Your task to perform on an android device: turn off smart reply in the gmail app Image 0: 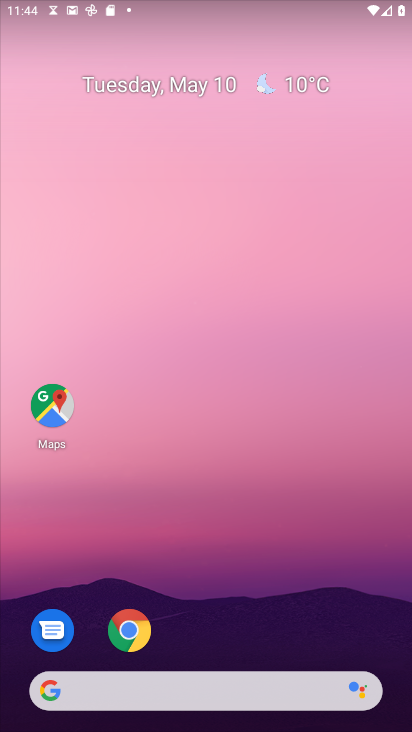
Step 0: drag from (239, 619) to (269, 92)
Your task to perform on an android device: turn off smart reply in the gmail app Image 1: 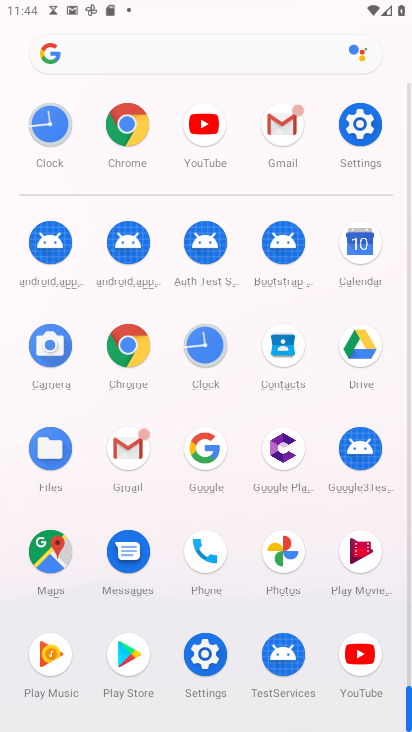
Step 1: click (284, 128)
Your task to perform on an android device: turn off smart reply in the gmail app Image 2: 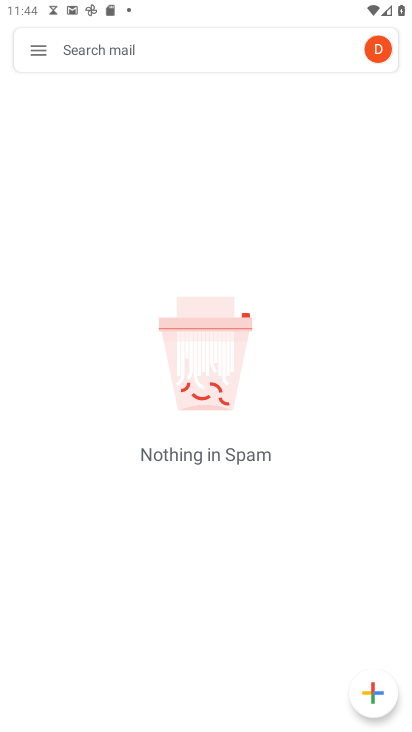
Step 2: click (40, 48)
Your task to perform on an android device: turn off smart reply in the gmail app Image 3: 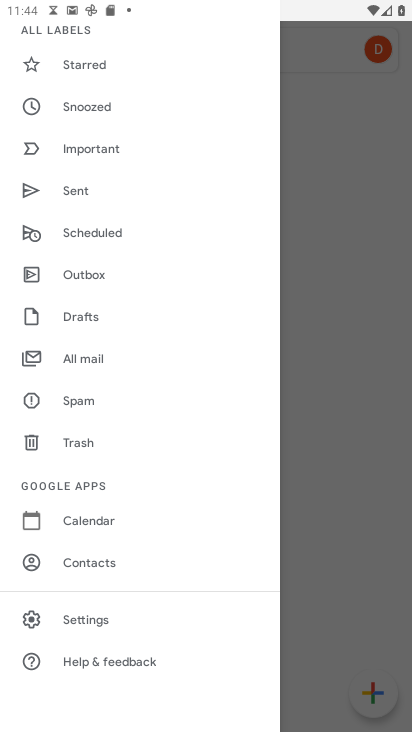
Step 3: click (97, 614)
Your task to perform on an android device: turn off smart reply in the gmail app Image 4: 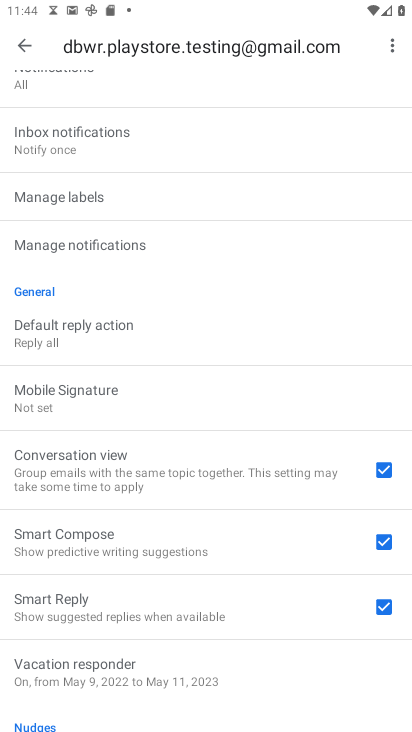
Step 4: click (381, 611)
Your task to perform on an android device: turn off smart reply in the gmail app Image 5: 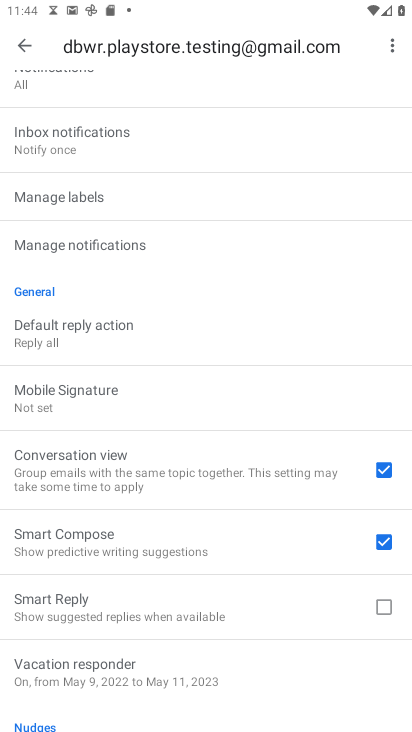
Step 5: task complete